Your task to perform on an android device: What's on my calendar today? Image 0: 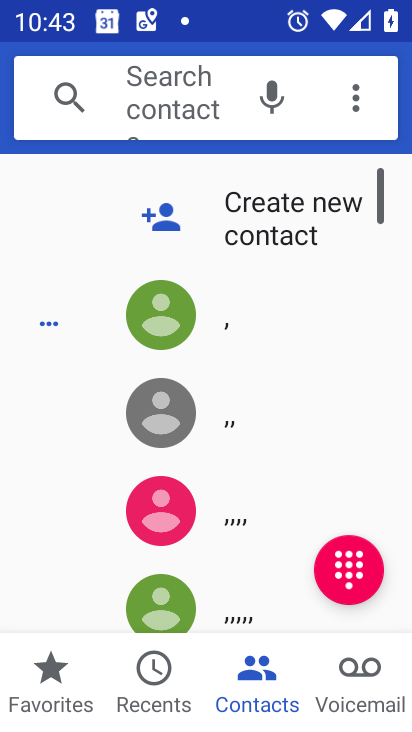
Step 0: press home button
Your task to perform on an android device: What's on my calendar today? Image 1: 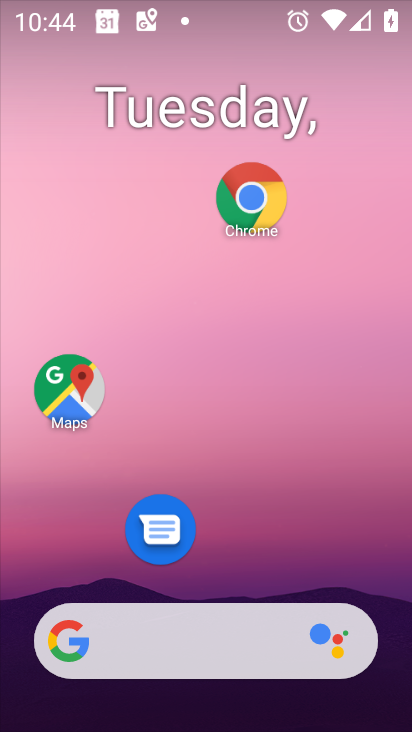
Step 1: drag from (292, 582) to (294, 0)
Your task to perform on an android device: What's on my calendar today? Image 2: 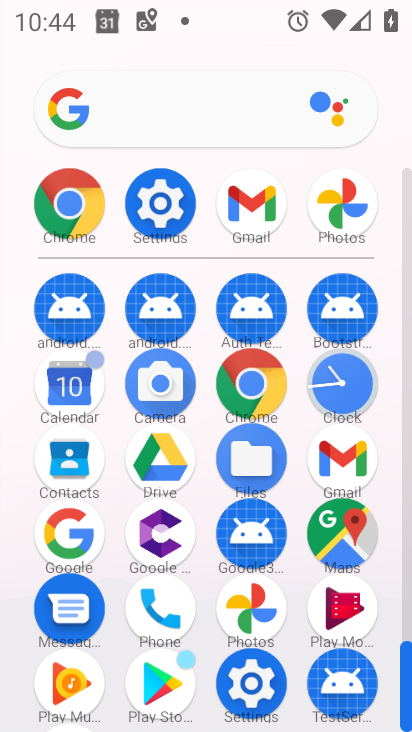
Step 2: click (59, 413)
Your task to perform on an android device: What's on my calendar today? Image 3: 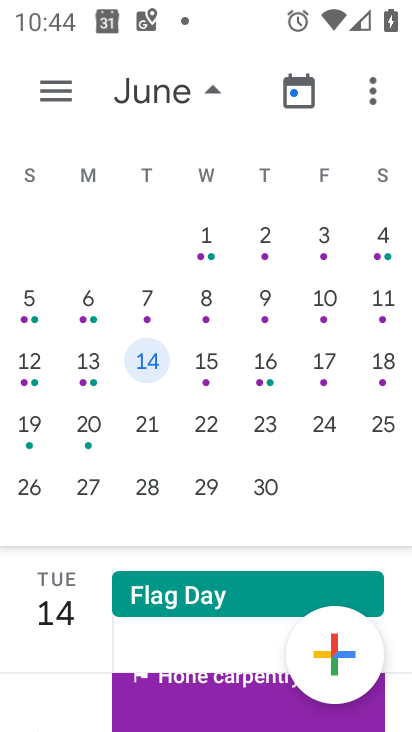
Step 3: task complete